Your task to perform on an android device: Open Wikipedia Image 0: 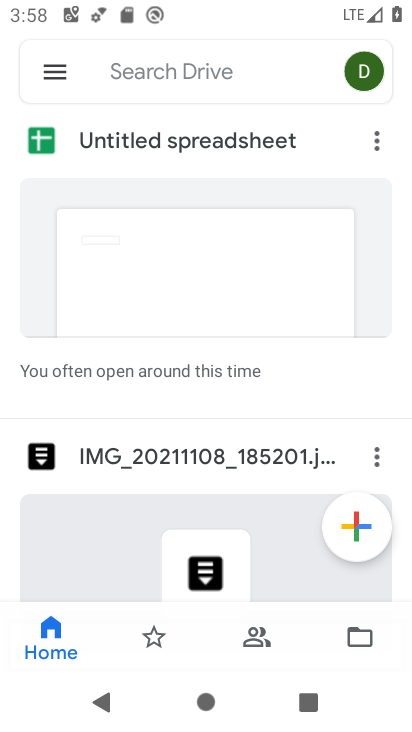
Step 0: press home button
Your task to perform on an android device: Open Wikipedia Image 1: 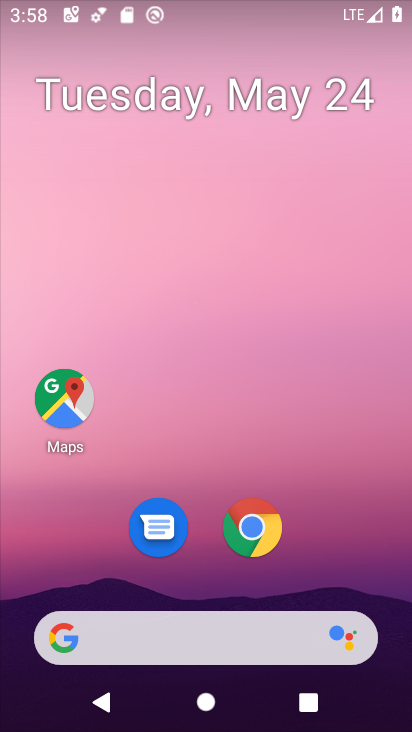
Step 1: click (256, 530)
Your task to perform on an android device: Open Wikipedia Image 2: 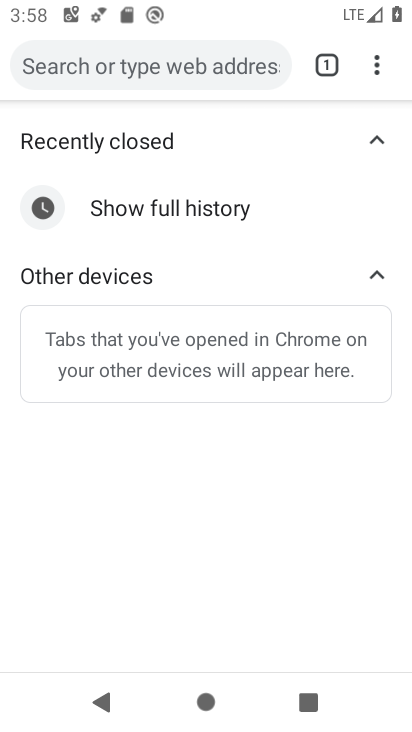
Step 2: click (63, 71)
Your task to perform on an android device: Open Wikipedia Image 3: 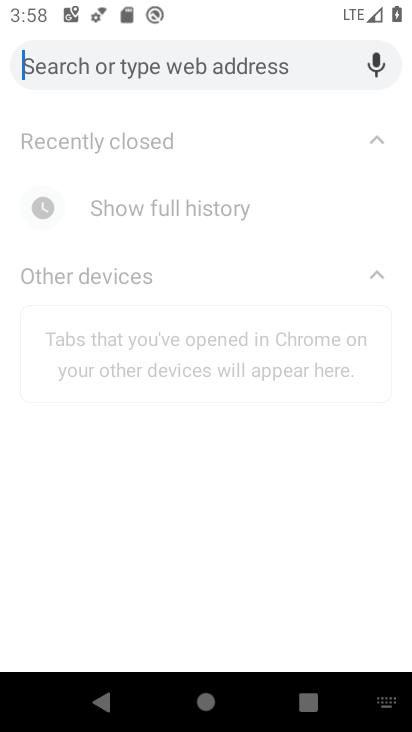
Step 3: type "wikipedia"
Your task to perform on an android device: Open Wikipedia Image 4: 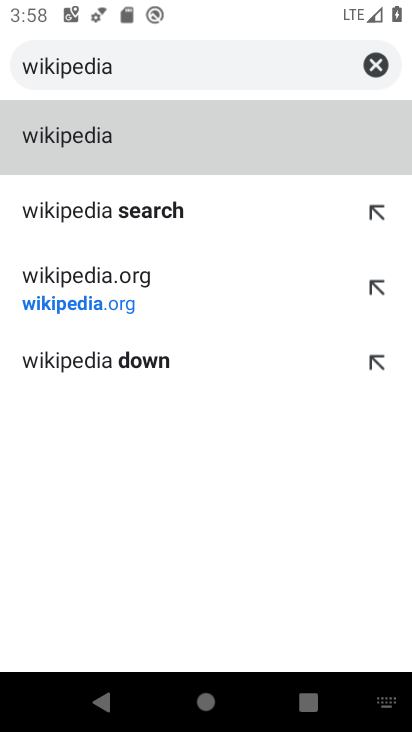
Step 4: click (85, 133)
Your task to perform on an android device: Open Wikipedia Image 5: 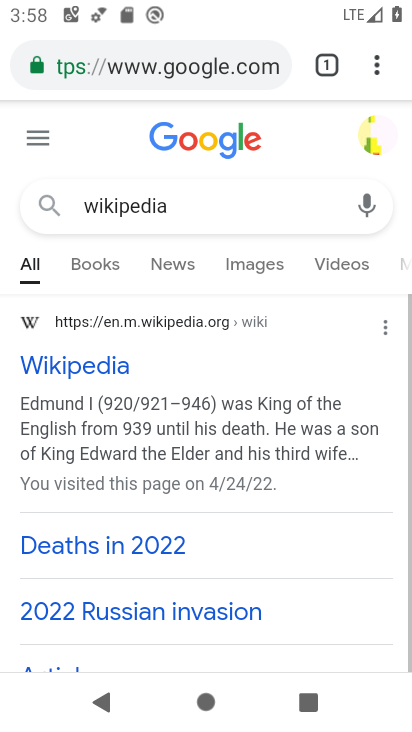
Step 5: click (55, 379)
Your task to perform on an android device: Open Wikipedia Image 6: 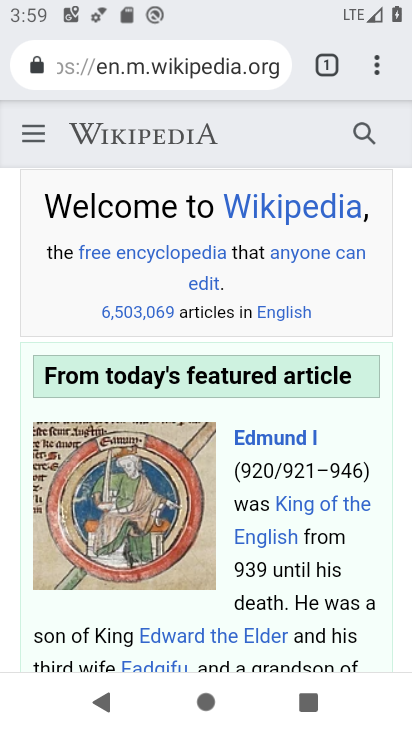
Step 6: task complete